Your task to perform on an android device: all mails in gmail Image 0: 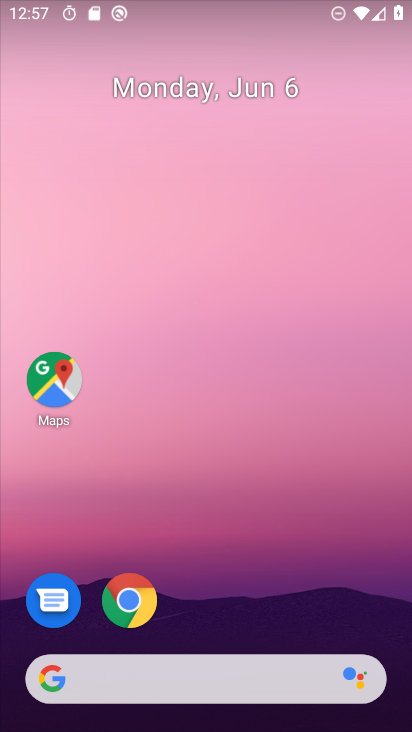
Step 0: drag from (219, 617) to (192, 240)
Your task to perform on an android device: all mails in gmail Image 1: 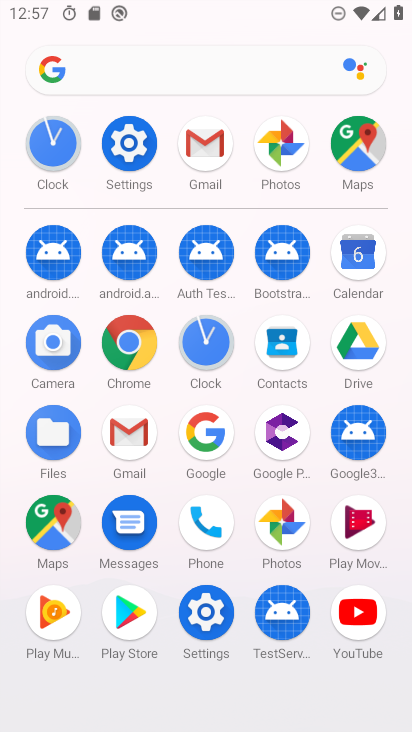
Step 1: click (208, 144)
Your task to perform on an android device: all mails in gmail Image 2: 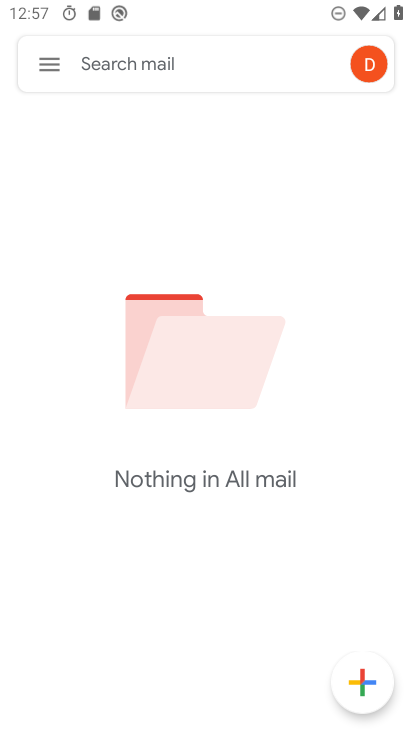
Step 2: click (53, 59)
Your task to perform on an android device: all mails in gmail Image 3: 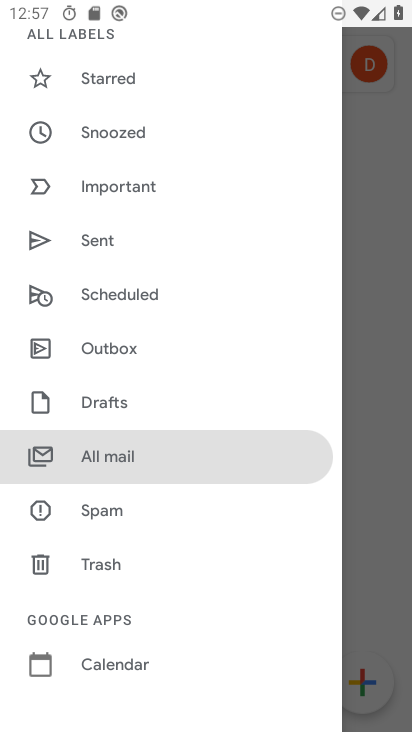
Step 3: click (127, 451)
Your task to perform on an android device: all mails in gmail Image 4: 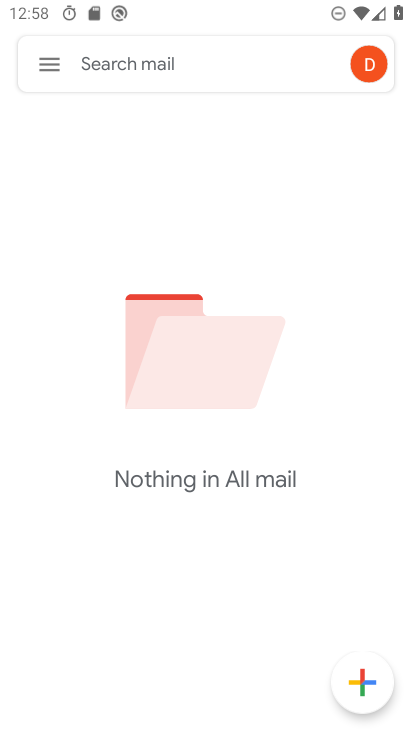
Step 4: click (50, 71)
Your task to perform on an android device: all mails in gmail Image 5: 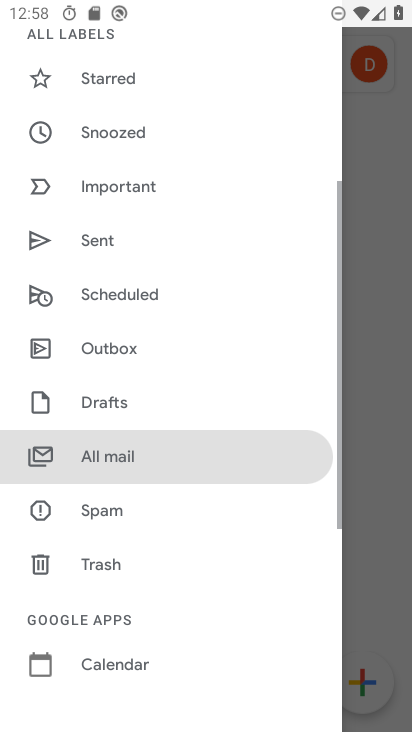
Step 5: click (133, 466)
Your task to perform on an android device: all mails in gmail Image 6: 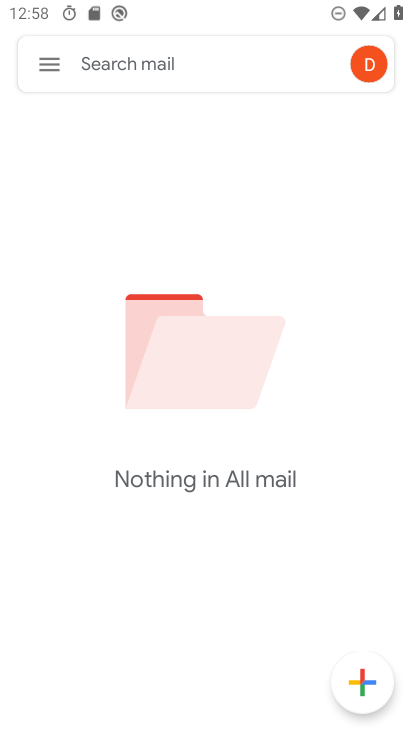
Step 6: task complete